Your task to perform on an android device: Open Google Chrome and click the shortcut for Amazon.com Image 0: 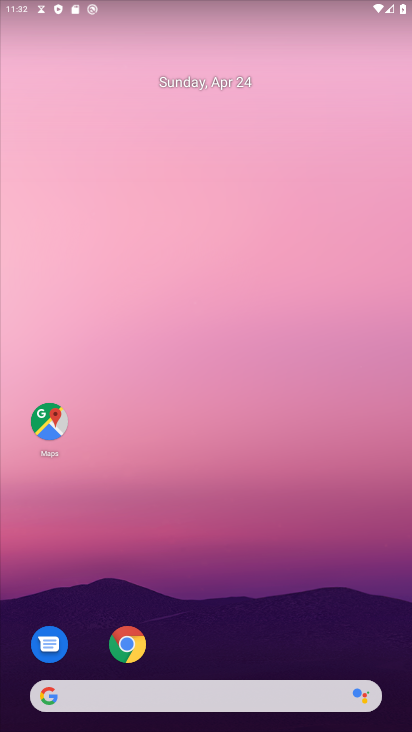
Step 0: click (128, 648)
Your task to perform on an android device: Open Google Chrome and click the shortcut for Amazon.com Image 1: 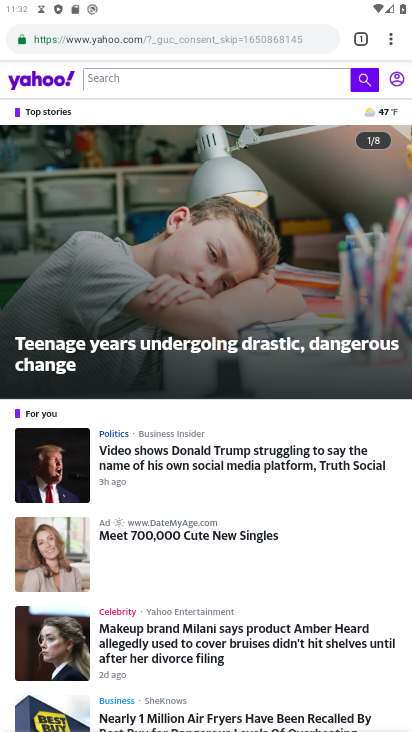
Step 1: drag from (389, 39) to (248, 117)
Your task to perform on an android device: Open Google Chrome and click the shortcut for Amazon.com Image 2: 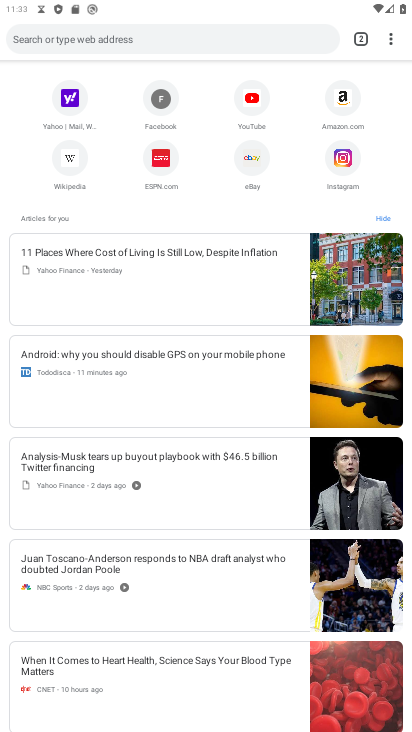
Step 2: click (347, 95)
Your task to perform on an android device: Open Google Chrome and click the shortcut for Amazon.com Image 3: 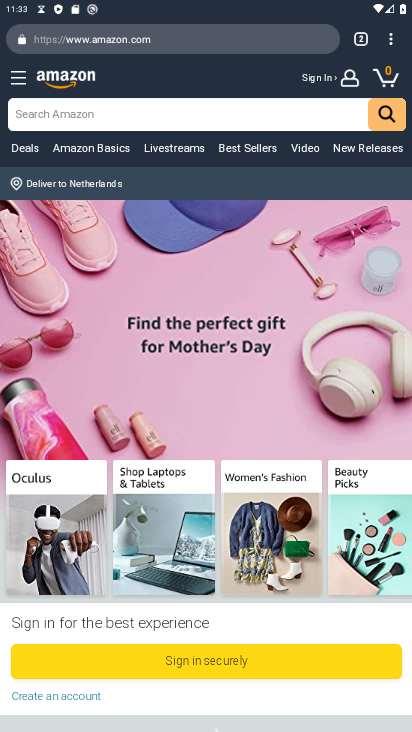
Step 3: task complete